Your task to perform on an android device: uninstall "LinkedIn" Image 0: 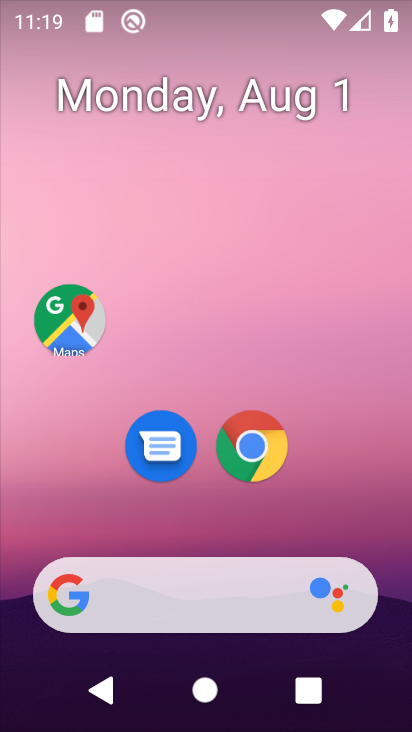
Step 0: drag from (219, 532) to (235, 19)
Your task to perform on an android device: uninstall "LinkedIn" Image 1: 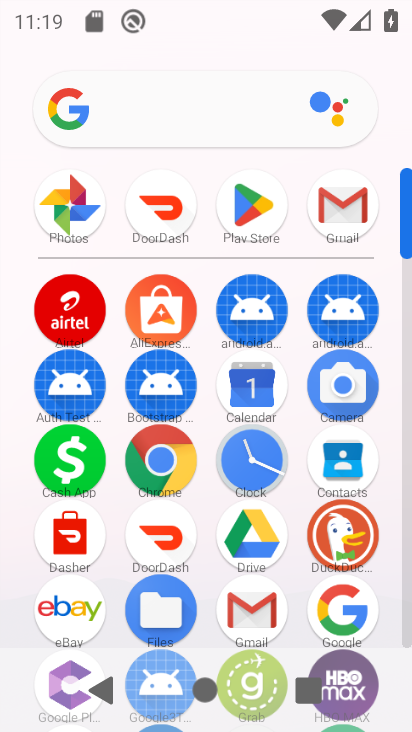
Step 1: click (249, 197)
Your task to perform on an android device: uninstall "LinkedIn" Image 2: 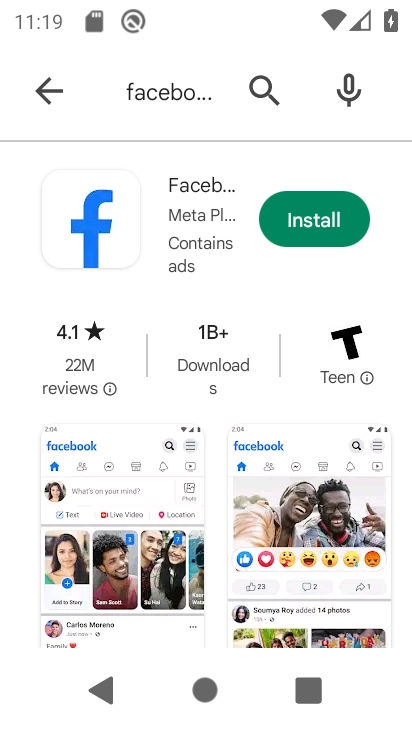
Step 2: click (281, 87)
Your task to perform on an android device: uninstall "LinkedIn" Image 3: 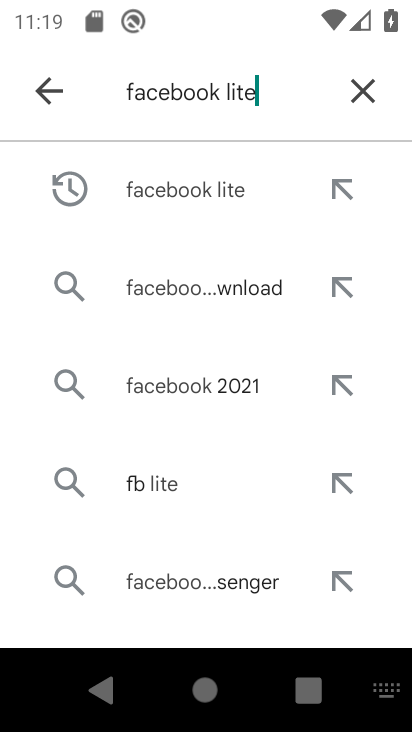
Step 3: click (362, 93)
Your task to perform on an android device: uninstall "LinkedIn" Image 4: 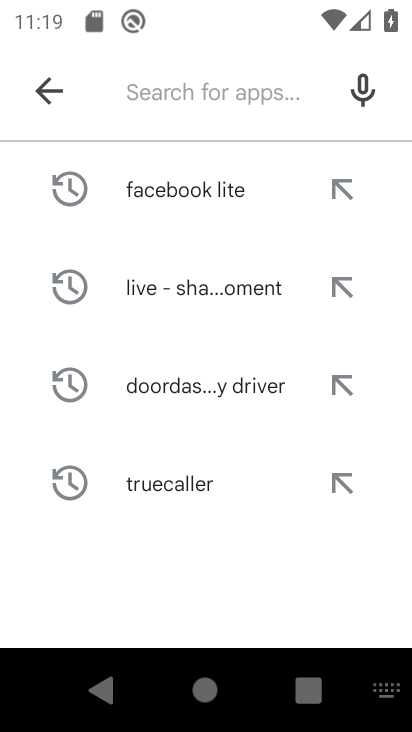
Step 4: type "LinkedIn"
Your task to perform on an android device: uninstall "LinkedIn" Image 5: 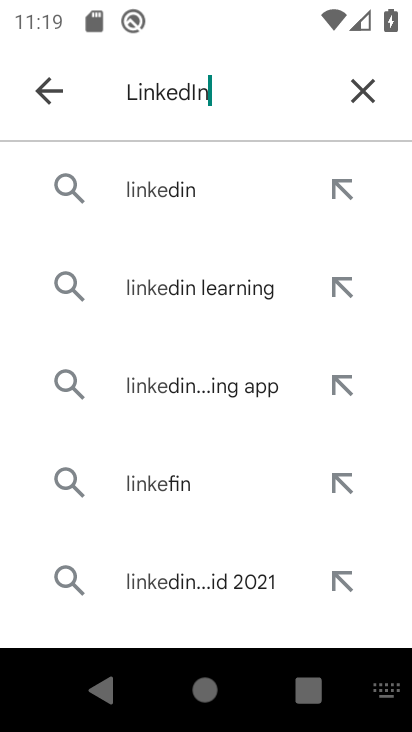
Step 5: type ""
Your task to perform on an android device: uninstall "LinkedIn" Image 6: 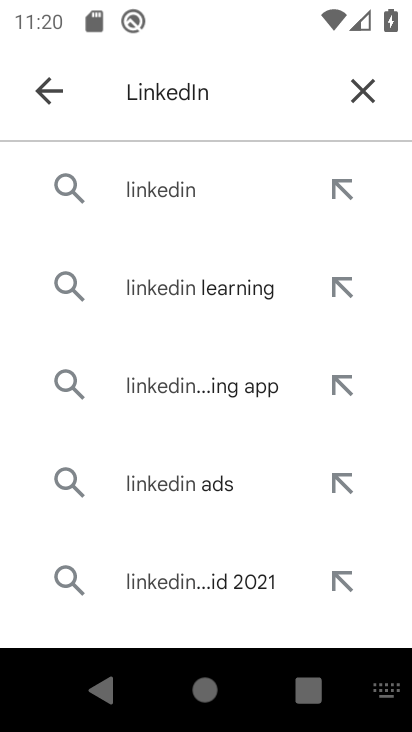
Step 6: click (208, 187)
Your task to perform on an android device: uninstall "LinkedIn" Image 7: 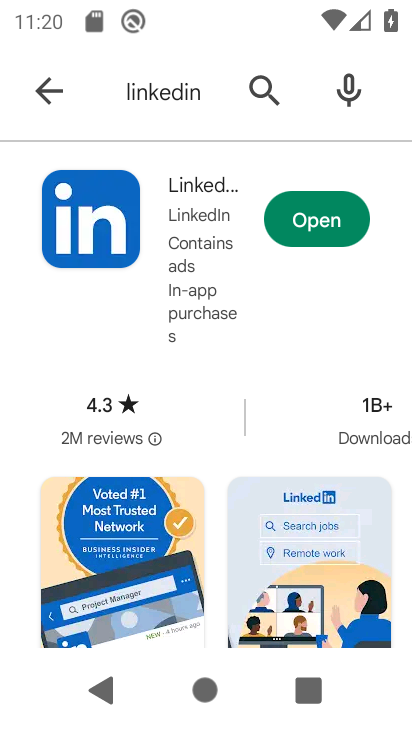
Step 7: click (208, 187)
Your task to perform on an android device: uninstall "LinkedIn" Image 8: 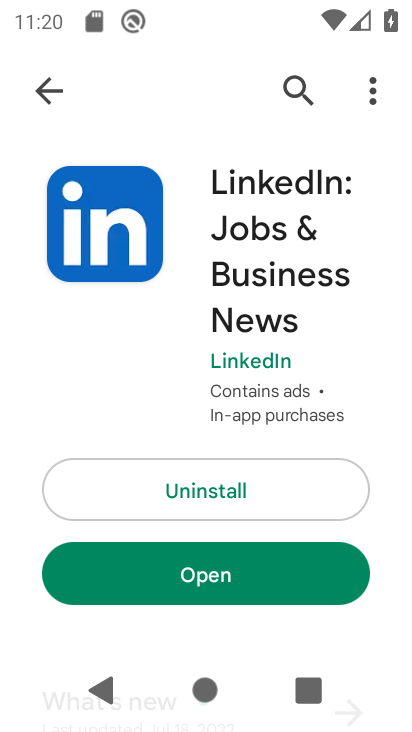
Step 8: click (207, 484)
Your task to perform on an android device: uninstall "LinkedIn" Image 9: 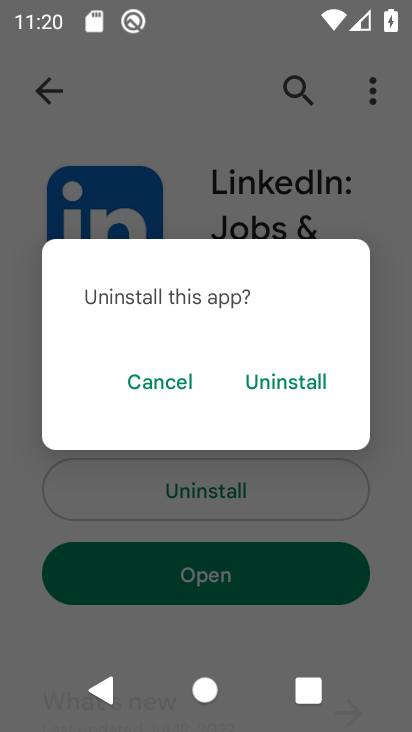
Step 9: click (293, 390)
Your task to perform on an android device: uninstall "LinkedIn" Image 10: 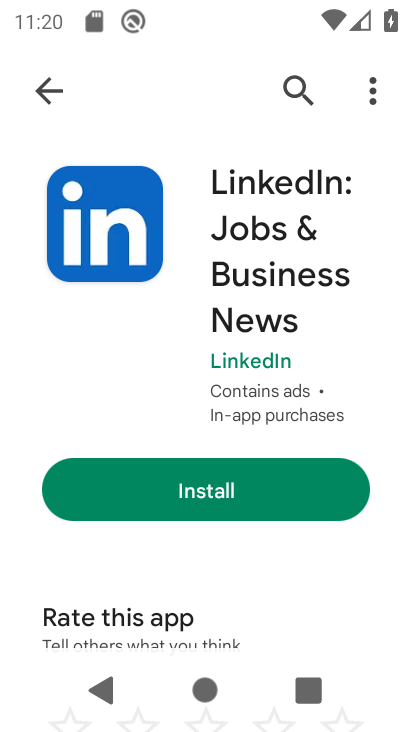
Step 10: task complete